Your task to perform on an android device: Open Chrome and go to settings Image 0: 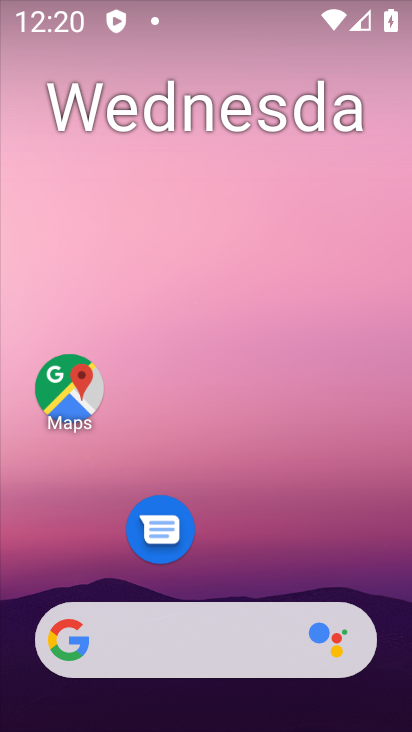
Step 0: drag from (217, 565) to (244, 22)
Your task to perform on an android device: Open Chrome and go to settings Image 1: 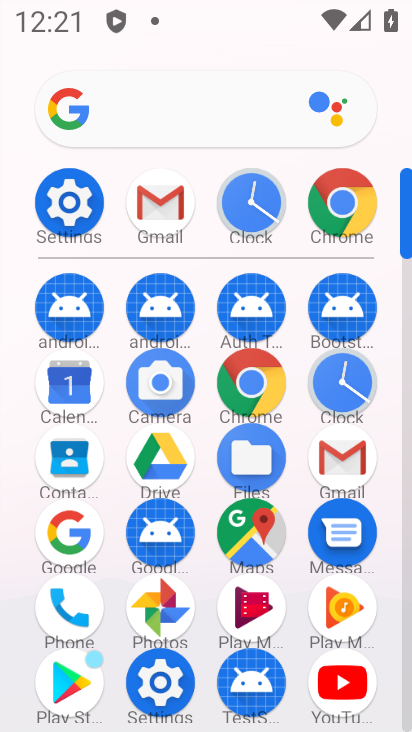
Step 1: click (359, 207)
Your task to perform on an android device: Open Chrome and go to settings Image 2: 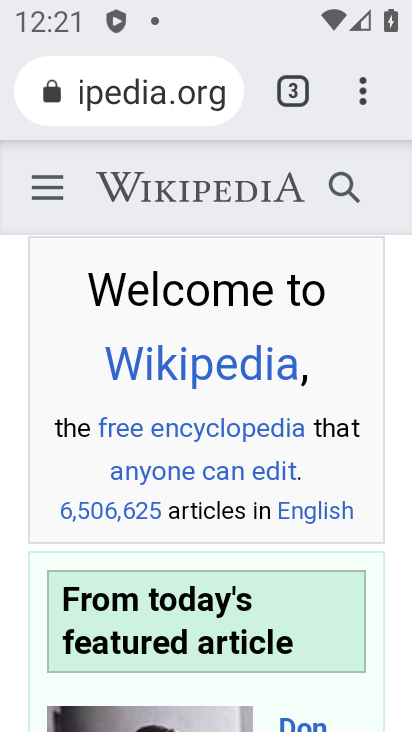
Step 2: task complete